Your task to perform on an android device: turn on notifications settings in the gmail app Image 0: 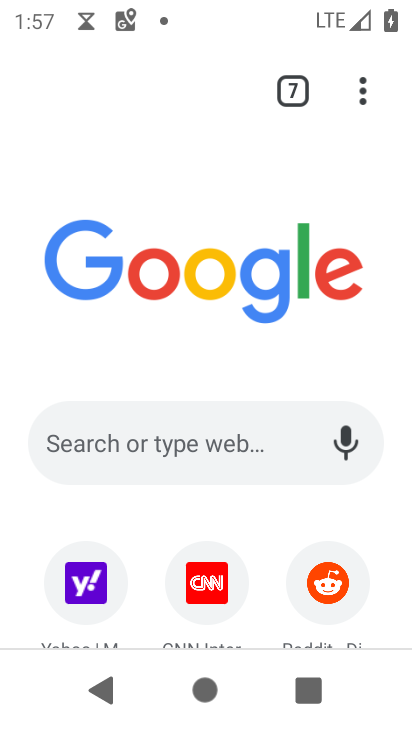
Step 0: press home button
Your task to perform on an android device: turn on notifications settings in the gmail app Image 1: 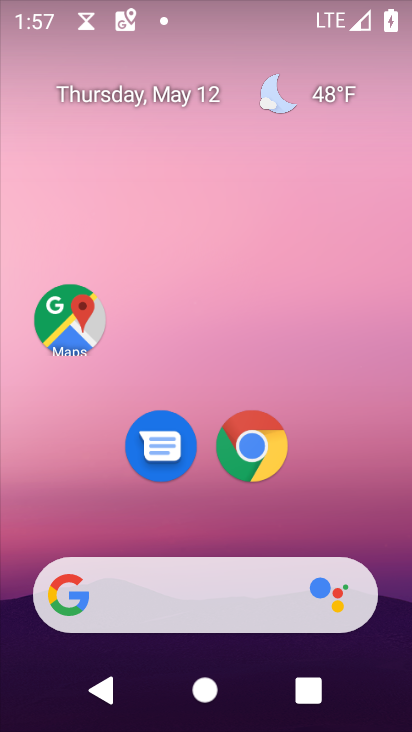
Step 1: drag from (320, 512) to (314, 92)
Your task to perform on an android device: turn on notifications settings in the gmail app Image 2: 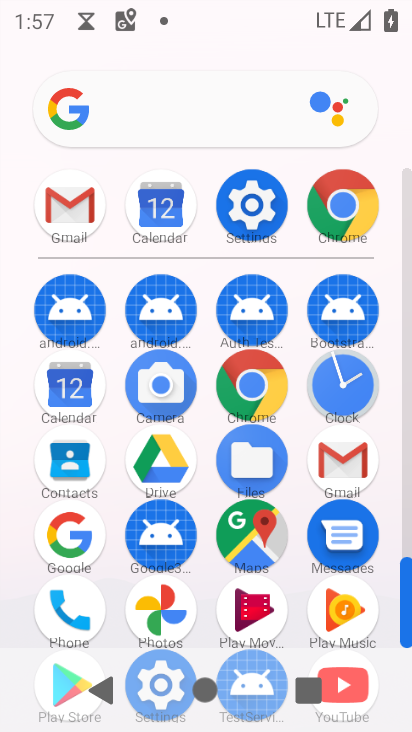
Step 2: click (71, 204)
Your task to perform on an android device: turn on notifications settings in the gmail app Image 3: 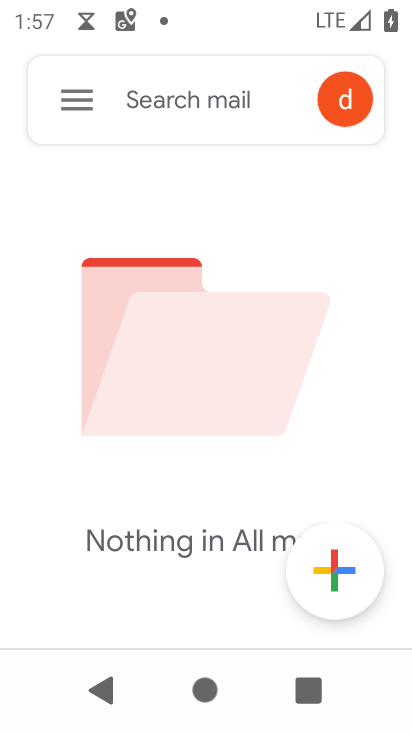
Step 3: click (66, 102)
Your task to perform on an android device: turn on notifications settings in the gmail app Image 4: 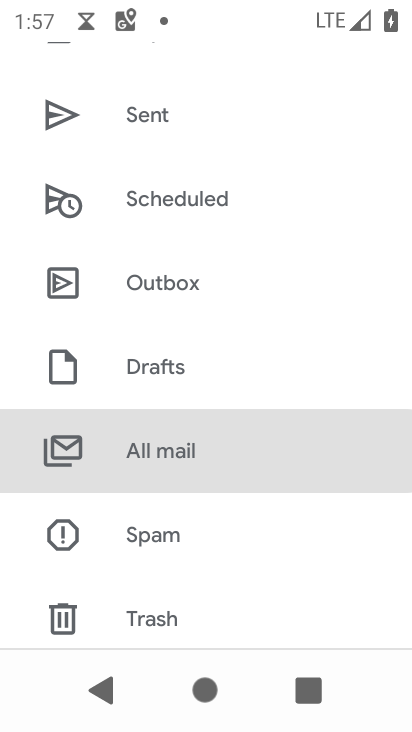
Step 4: drag from (173, 584) to (232, 234)
Your task to perform on an android device: turn on notifications settings in the gmail app Image 5: 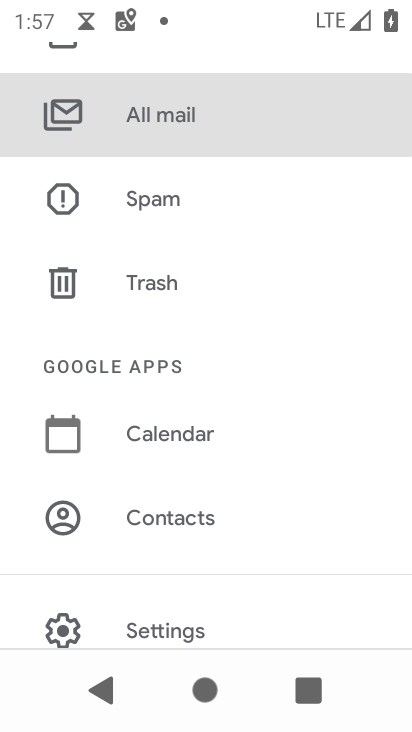
Step 5: click (182, 611)
Your task to perform on an android device: turn on notifications settings in the gmail app Image 6: 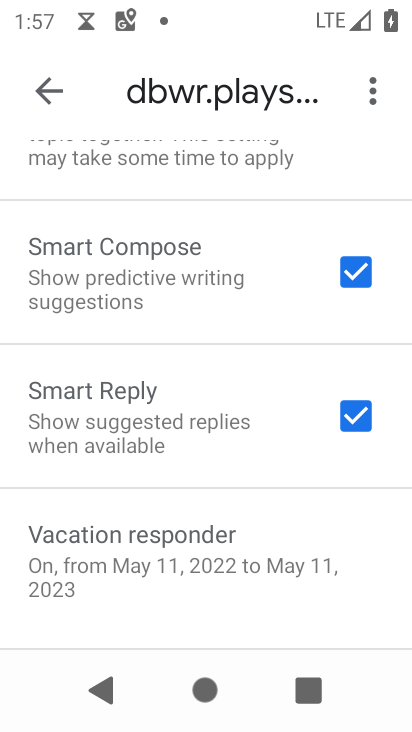
Step 6: drag from (222, 524) to (174, 652)
Your task to perform on an android device: turn on notifications settings in the gmail app Image 7: 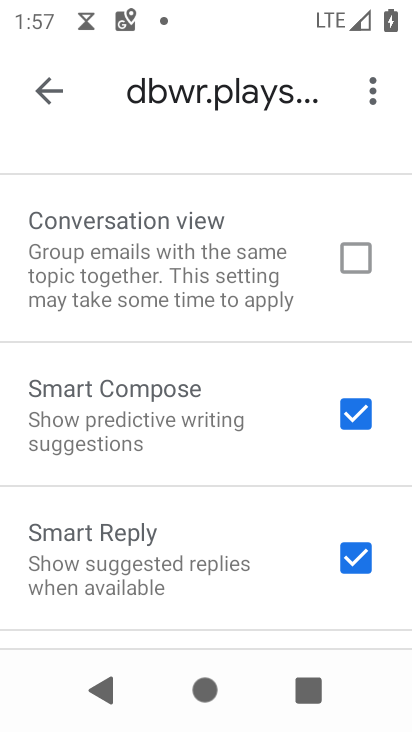
Step 7: drag from (190, 221) to (176, 603)
Your task to perform on an android device: turn on notifications settings in the gmail app Image 8: 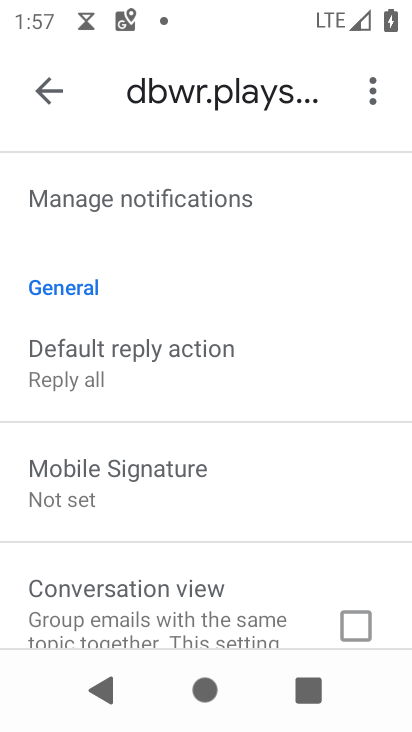
Step 8: click (198, 208)
Your task to perform on an android device: turn on notifications settings in the gmail app Image 9: 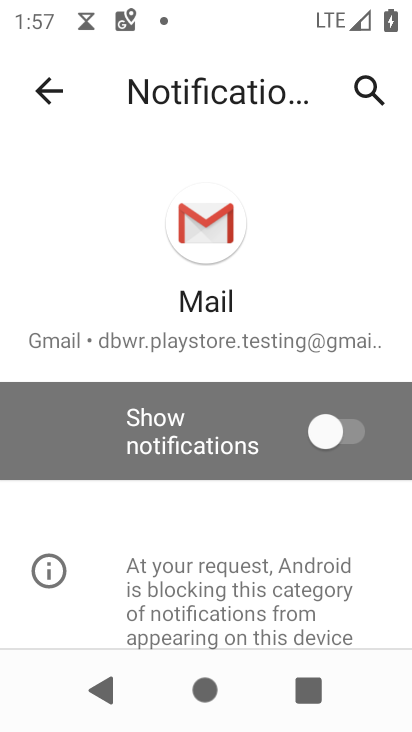
Step 9: click (360, 429)
Your task to perform on an android device: turn on notifications settings in the gmail app Image 10: 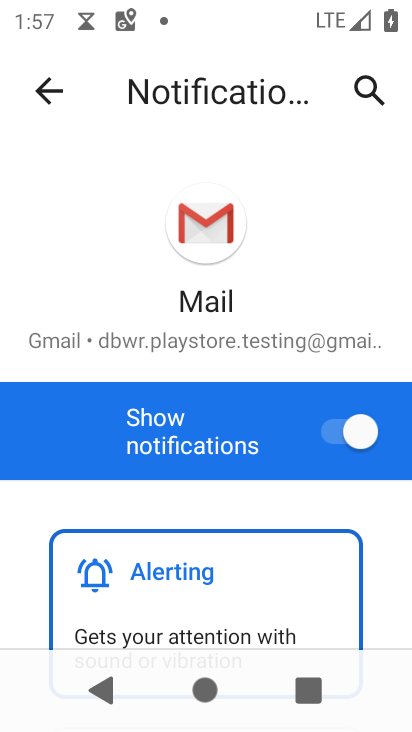
Step 10: task complete